Your task to perform on an android device: find snoozed emails in the gmail app Image 0: 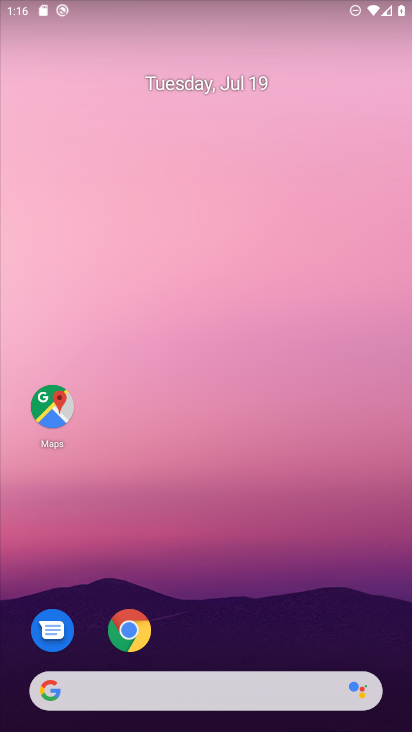
Step 0: press home button
Your task to perform on an android device: find snoozed emails in the gmail app Image 1: 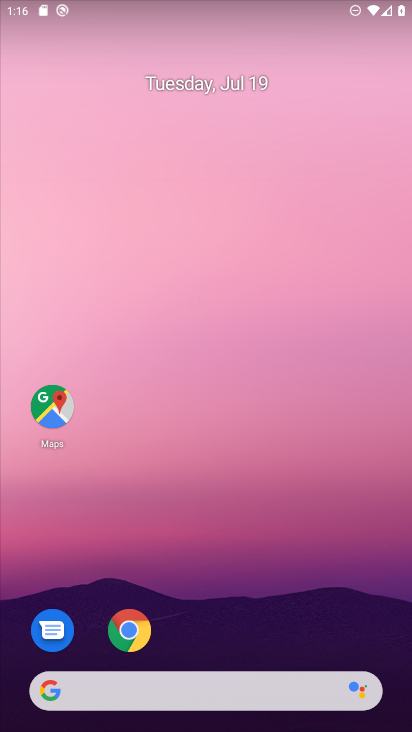
Step 1: drag from (154, 699) to (304, 92)
Your task to perform on an android device: find snoozed emails in the gmail app Image 2: 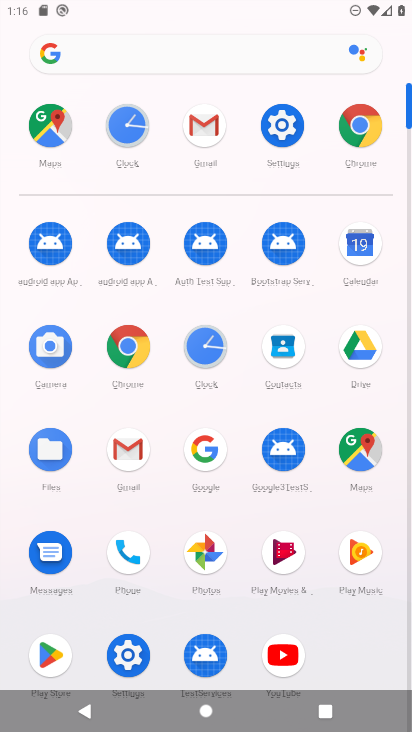
Step 2: click (205, 130)
Your task to perform on an android device: find snoozed emails in the gmail app Image 3: 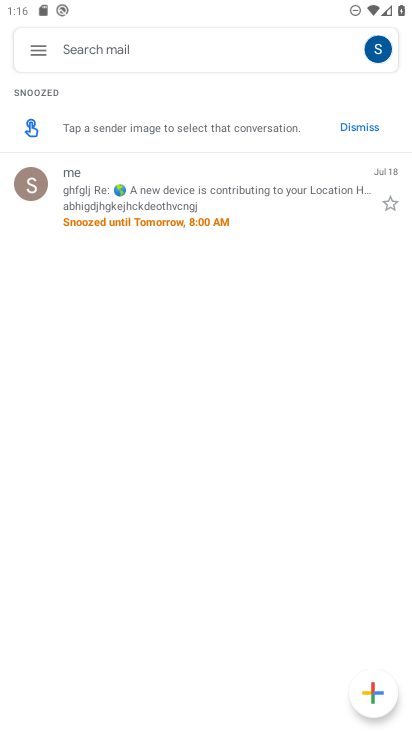
Step 3: click (39, 49)
Your task to perform on an android device: find snoozed emails in the gmail app Image 4: 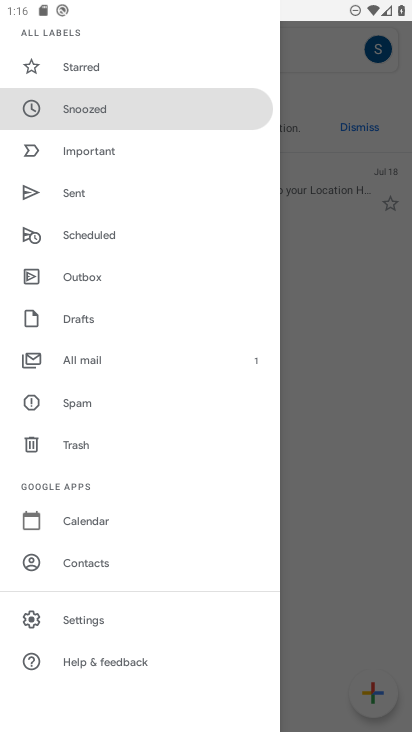
Step 4: click (84, 106)
Your task to perform on an android device: find snoozed emails in the gmail app Image 5: 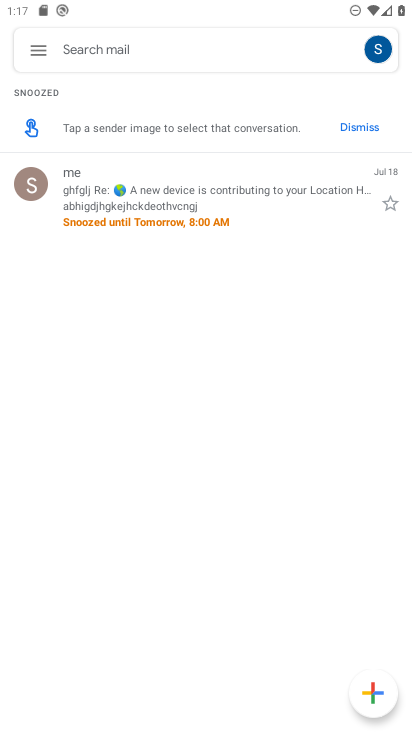
Step 5: task complete